Your task to perform on an android device: change notification settings in the gmail app Image 0: 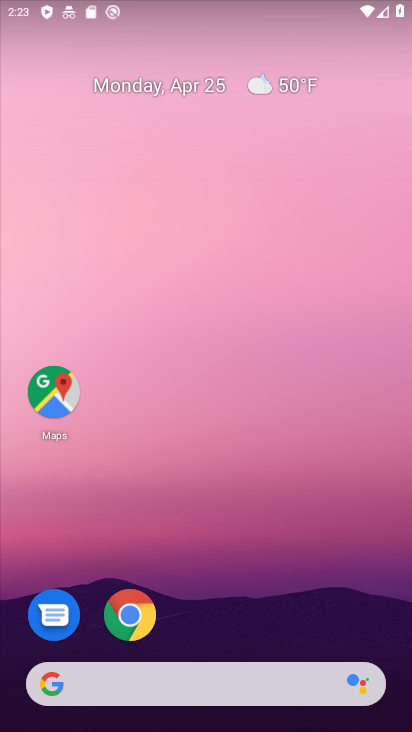
Step 0: drag from (206, 685) to (206, 71)
Your task to perform on an android device: change notification settings in the gmail app Image 1: 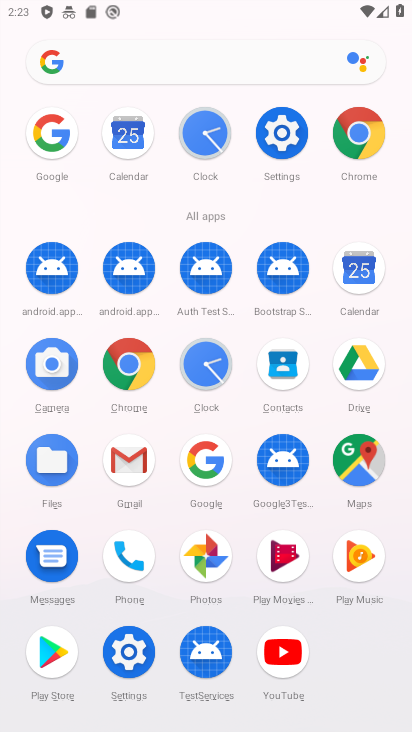
Step 1: click (129, 456)
Your task to perform on an android device: change notification settings in the gmail app Image 2: 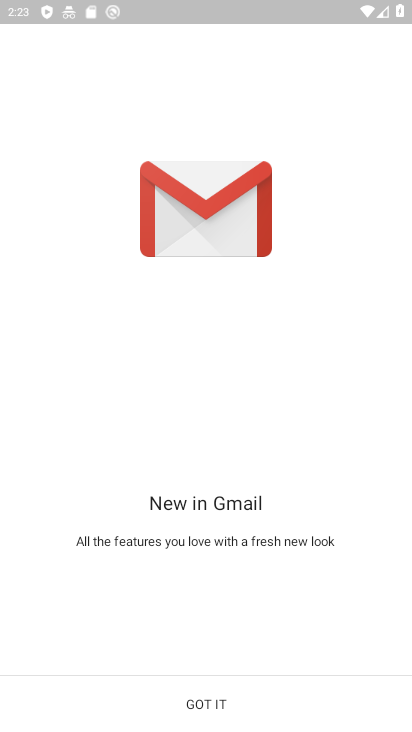
Step 2: click (210, 702)
Your task to perform on an android device: change notification settings in the gmail app Image 3: 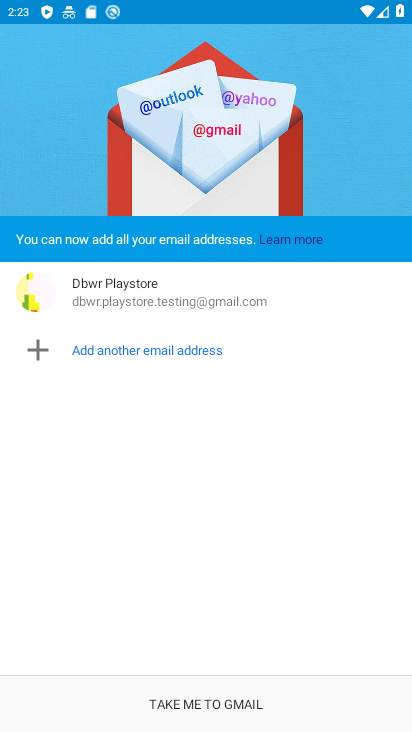
Step 3: click (199, 703)
Your task to perform on an android device: change notification settings in the gmail app Image 4: 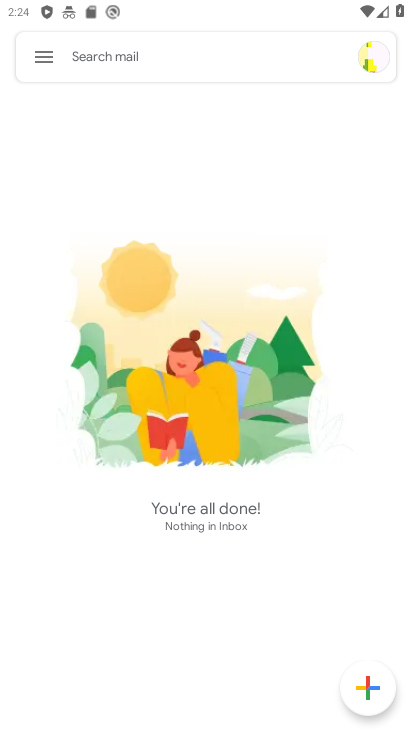
Step 4: click (44, 50)
Your task to perform on an android device: change notification settings in the gmail app Image 5: 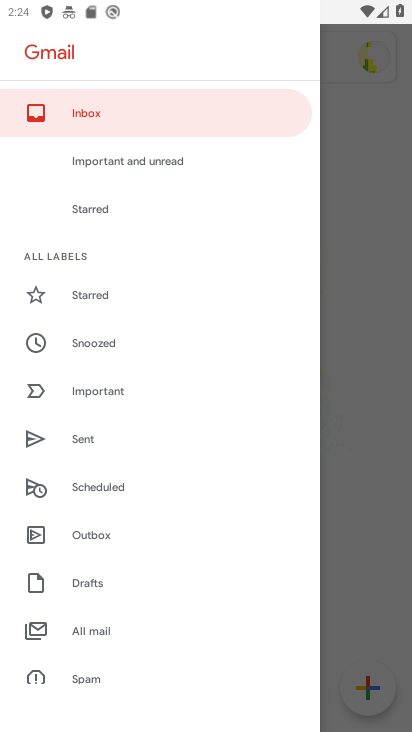
Step 5: drag from (125, 647) to (105, 378)
Your task to perform on an android device: change notification settings in the gmail app Image 6: 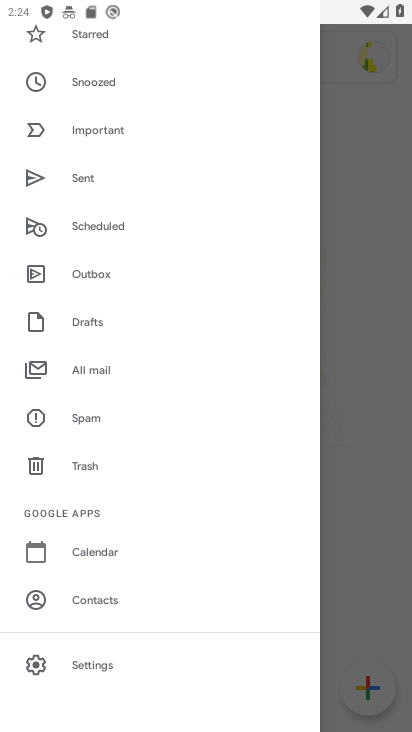
Step 6: click (85, 657)
Your task to perform on an android device: change notification settings in the gmail app Image 7: 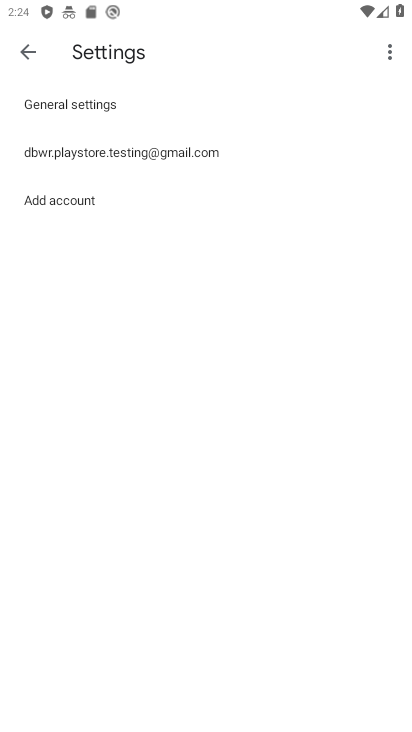
Step 7: click (179, 150)
Your task to perform on an android device: change notification settings in the gmail app Image 8: 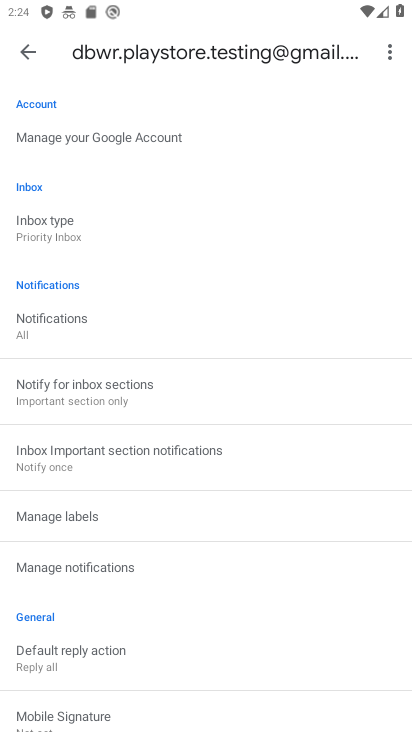
Step 8: click (56, 312)
Your task to perform on an android device: change notification settings in the gmail app Image 9: 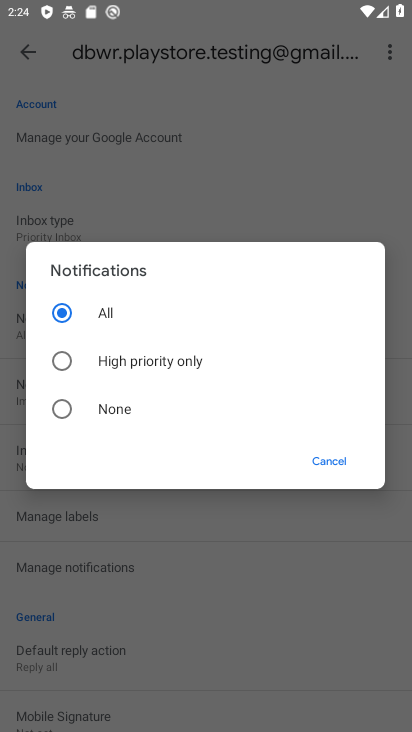
Step 9: click (59, 406)
Your task to perform on an android device: change notification settings in the gmail app Image 10: 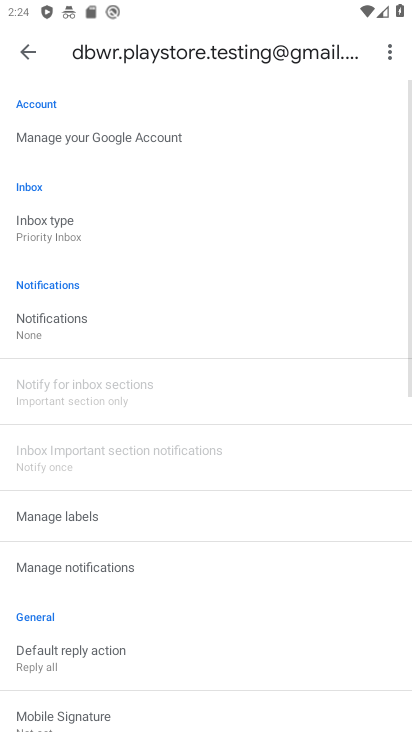
Step 10: task complete